Your task to perform on an android device: turn off notifications in google photos Image 0: 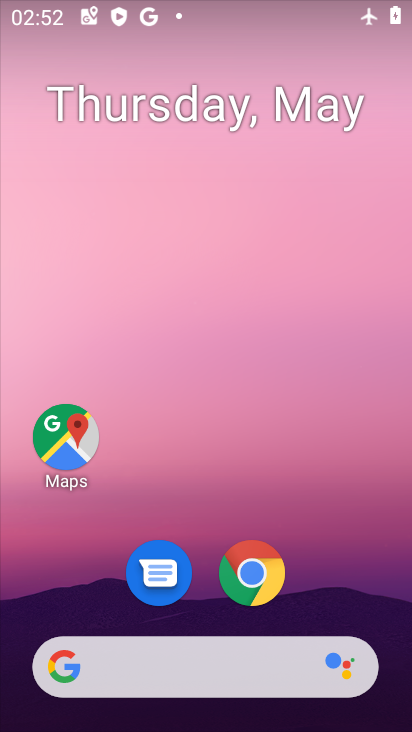
Step 0: drag from (326, 541) to (349, 320)
Your task to perform on an android device: turn off notifications in google photos Image 1: 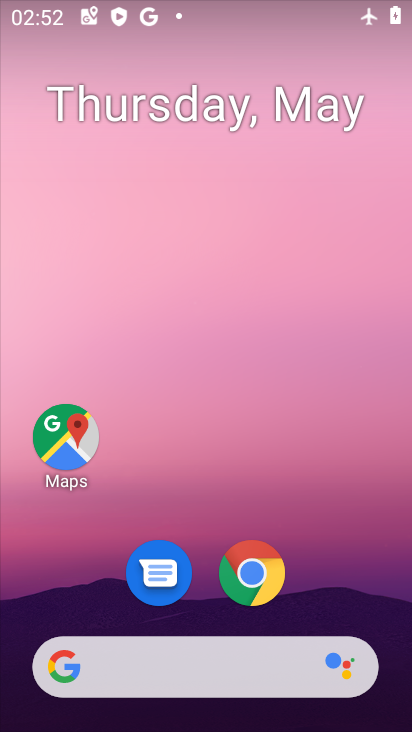
Step 1: drag from (313, 594) to (319, 255)
Your task to perform on an android device: turn off notifications in google photos Image 2: 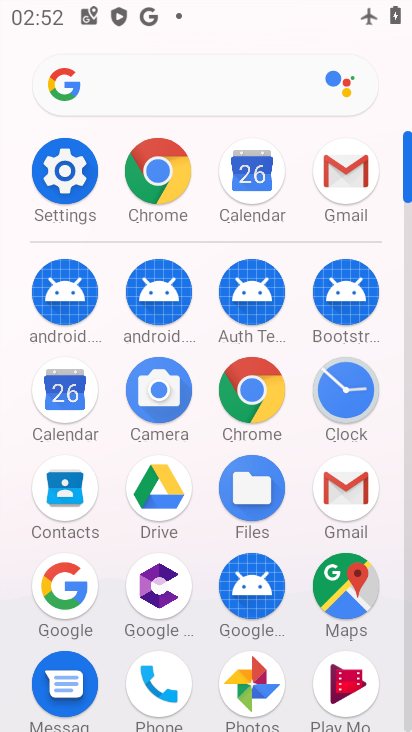
Step 2: click (253, 679)
Your task to perform on an android device: turn off notifications in google photos Image 3: 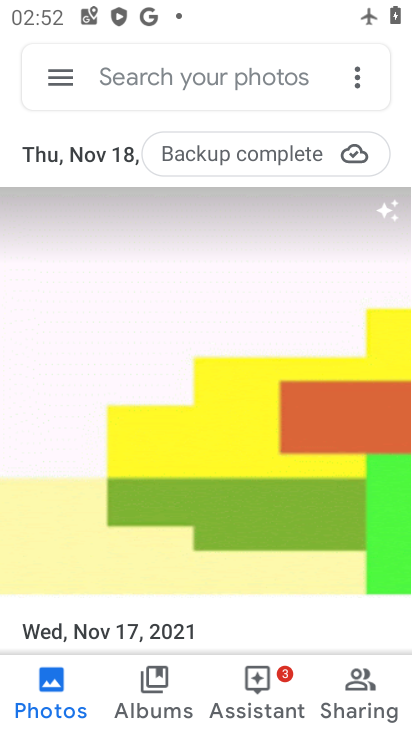
Step 3: click (53, 71)
Your task to perform on an android device: turn off notifications in google photos Image 4: 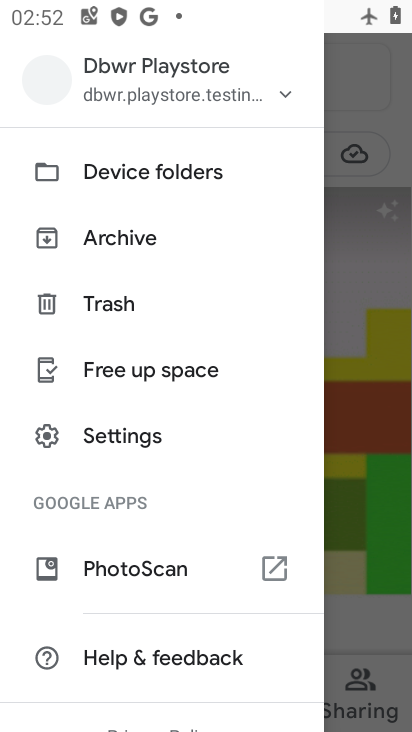
Step 4: click (145, 437)
Your task to perform on an android device: turn off notifications in google photos Image 5: 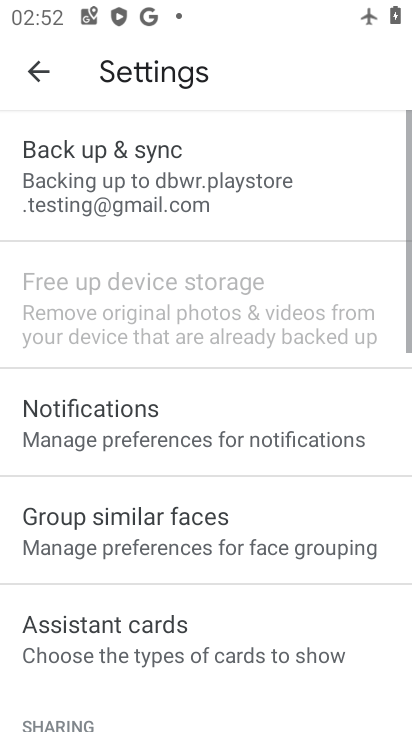
Step 5: click (163, 433)
Your task to perform on an android device: turn off notifications in google photos Image 6: 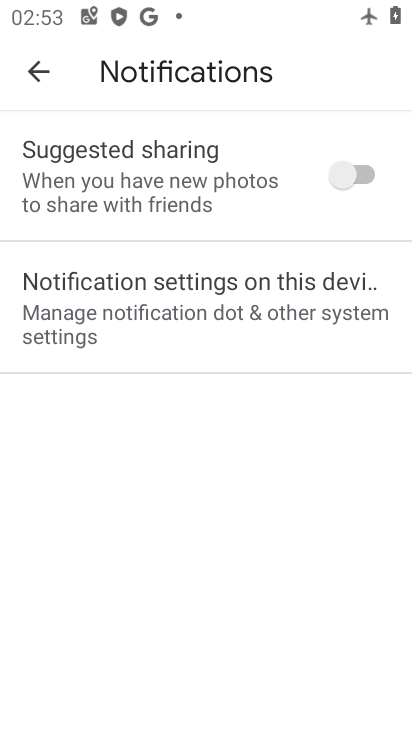
Step 6: click (184, 322)
Your task to perform on an android device: turn off notifications in google photos Image 7: 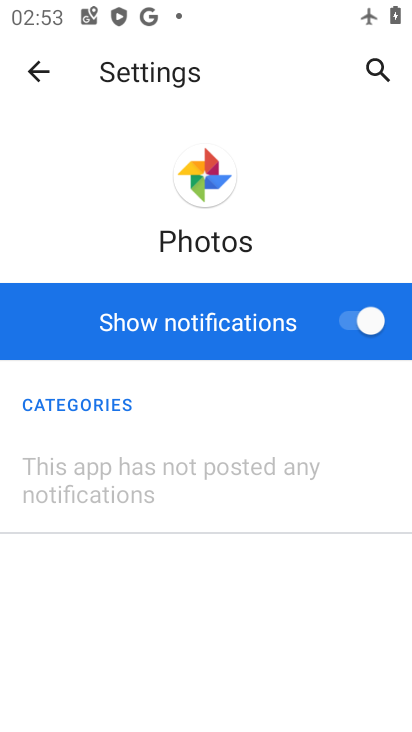
Step 7: click (345, 322)
Your task to perform on an android device: turn off notifications in google photos Image 8: 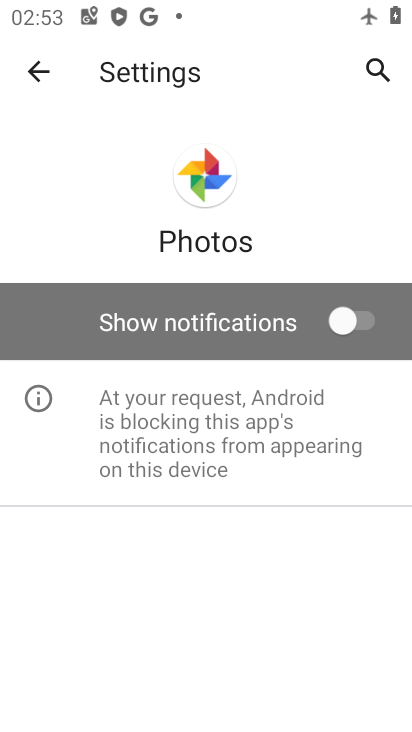
Step 8: task complete